Your task to perform on an android device: snooze an email in the gmail app Image 0: 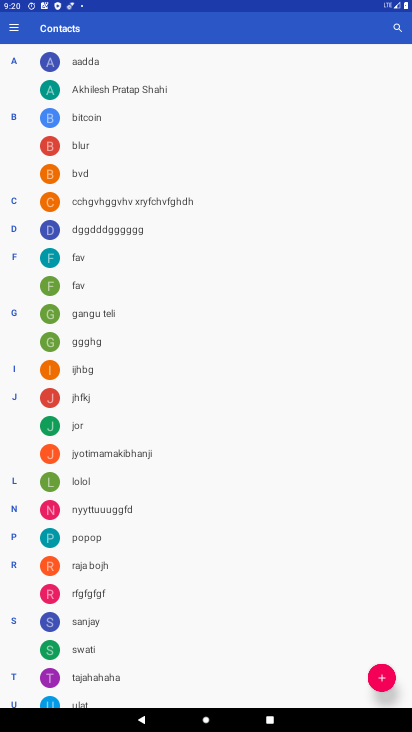
Step 0: press home button
Your task to perform on an android device: snooze an email in the gmail app Image 1: 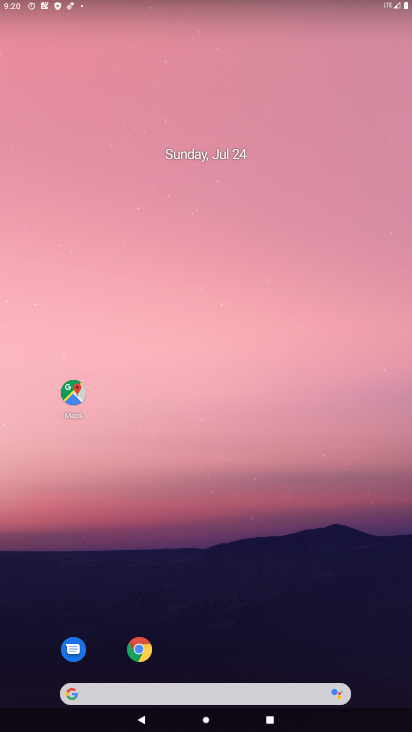
Step 1: drag from (34, 663) to (303, 213)
Your task to perform on an android device: snooze an email in the gmail app Image 2: 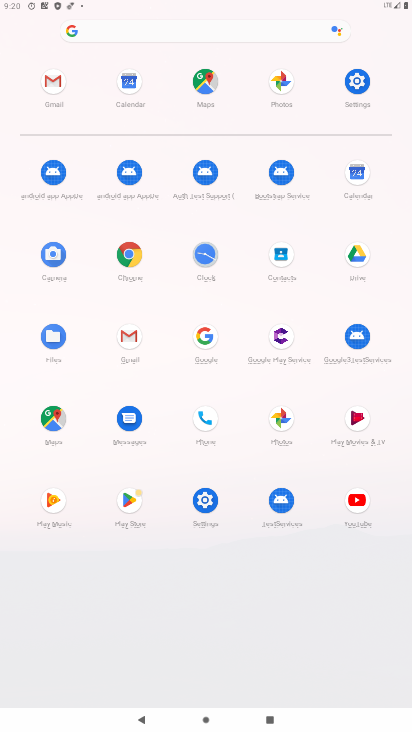
Step 2: click (135, 329)
Your task to perform on an android device: snooze an email in the gmail app Image 3: 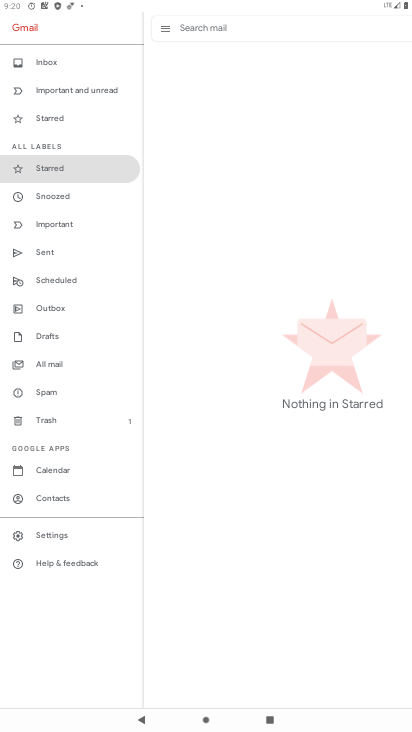
Step 3: click (48, 203)
Your task to perform on an android device: snooze an email in the gmail app Image 4: 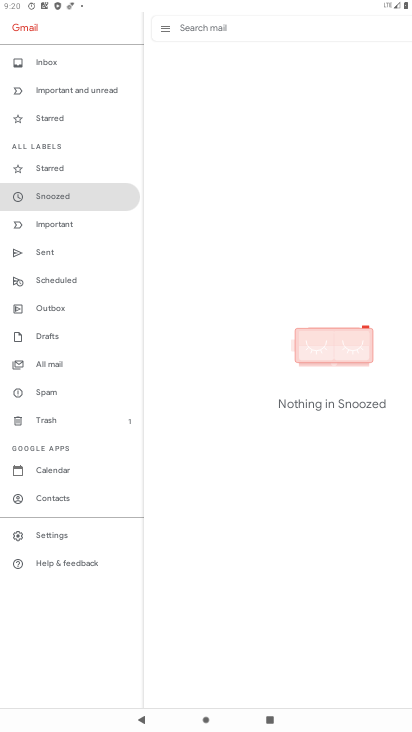
Step 4: task complete